Your task to perform on an android device: Show the shopping cart on walmart. Search for dell xps on walmart, select the first entry, add it to the cart, then select checkout. Image 0: 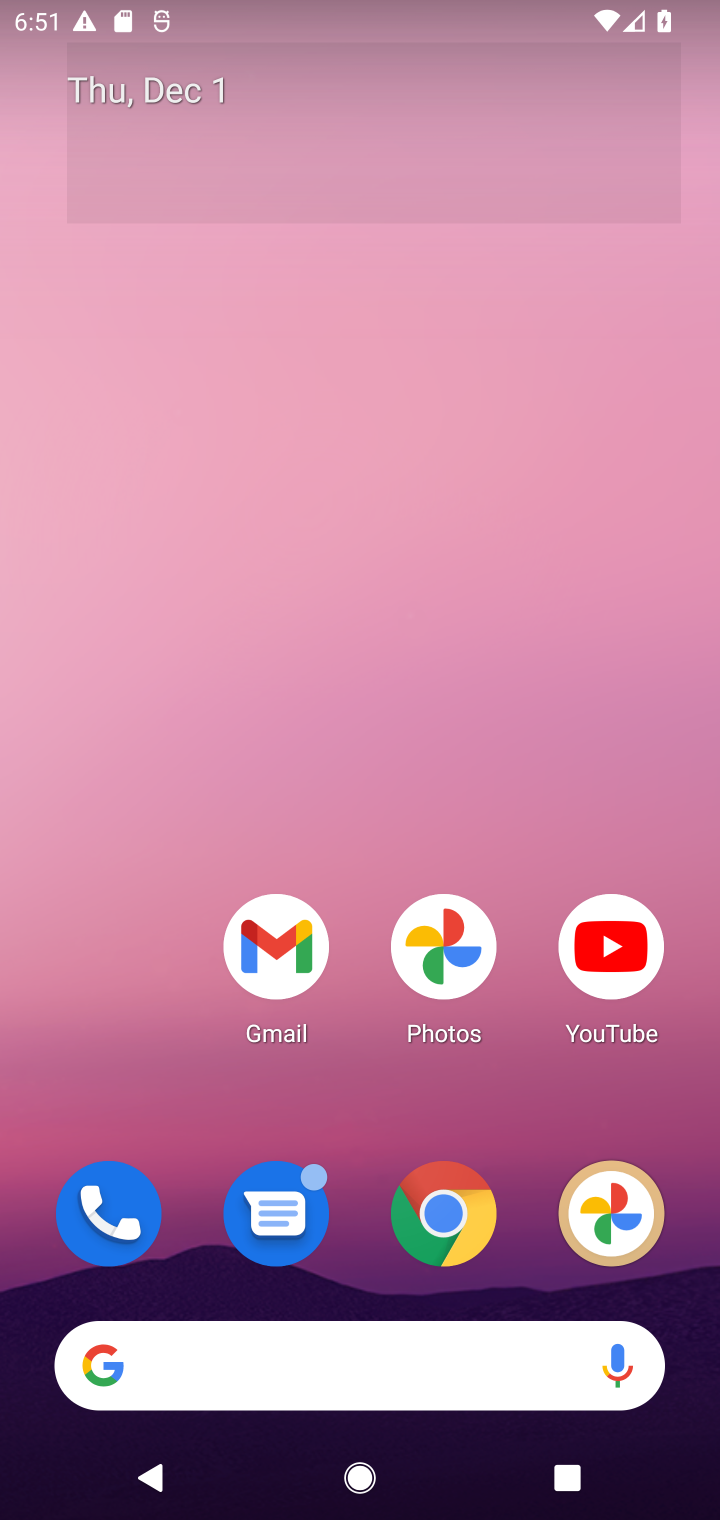
Step 0: click (325, 1381)
Your task to perform on an android device: Show the shopping cart on walmart. Search for dell xps on walmart, select the first entry, add it to the cart, then select checkout. Image 1: 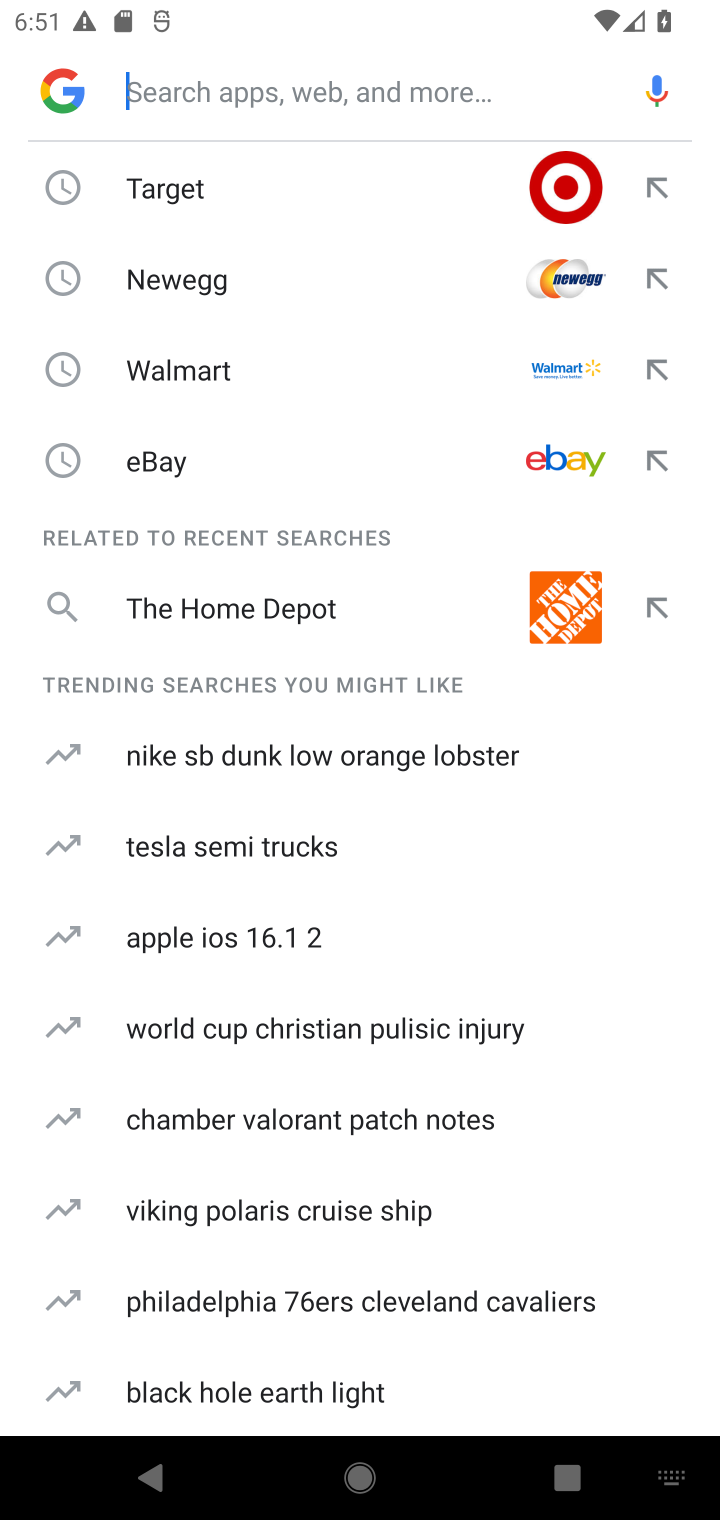
Step 1: type "walmart"
Your task to perform on an android device: Show the shopping cart on walmart. Search for dell xps on walmart, select the first entry, add it to the cart, then select checkout. Image 2: 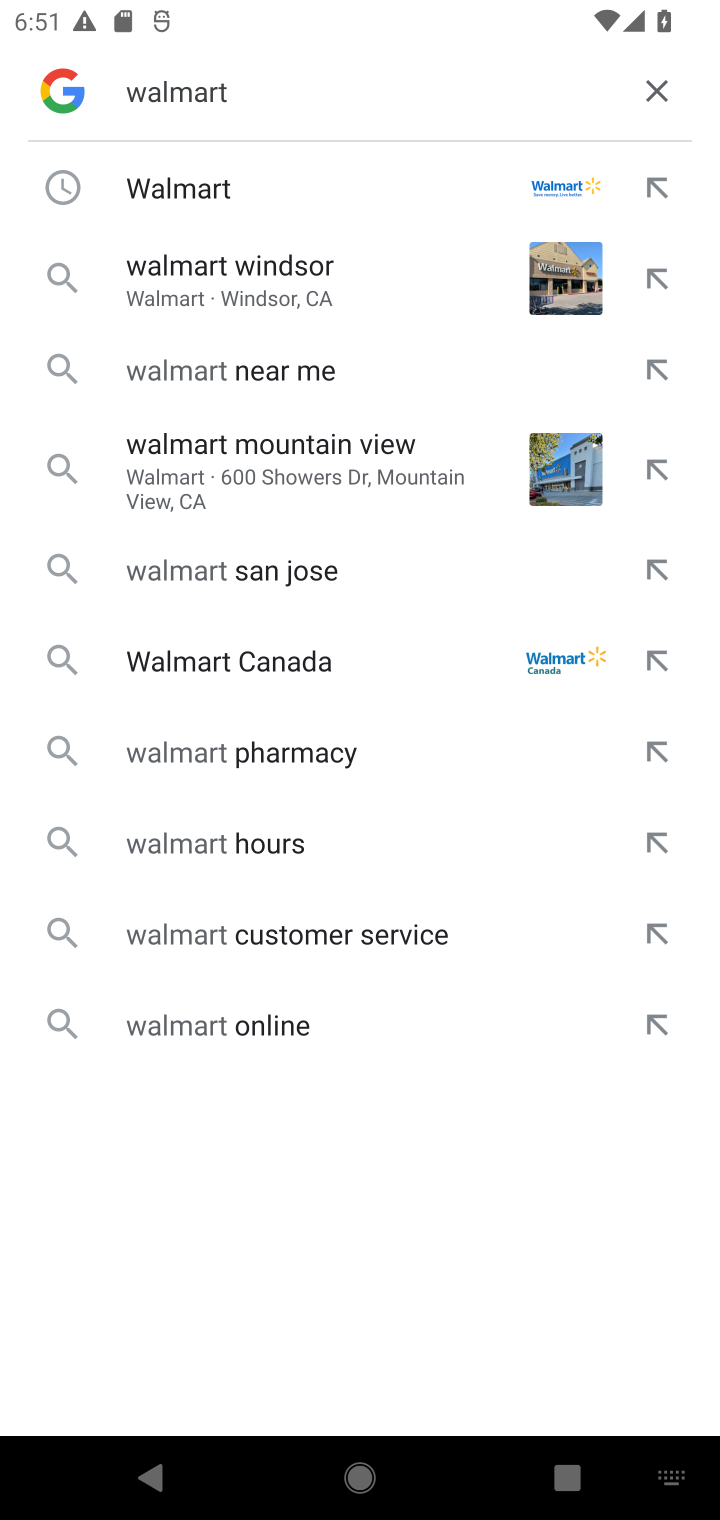
Step 2: click (219, 216)
Your task to perform on an android device: Show the shopping cart on walmart. Search for dell xps on walmart, select the first entry, add it to the cart, then select checkout. Image 3: 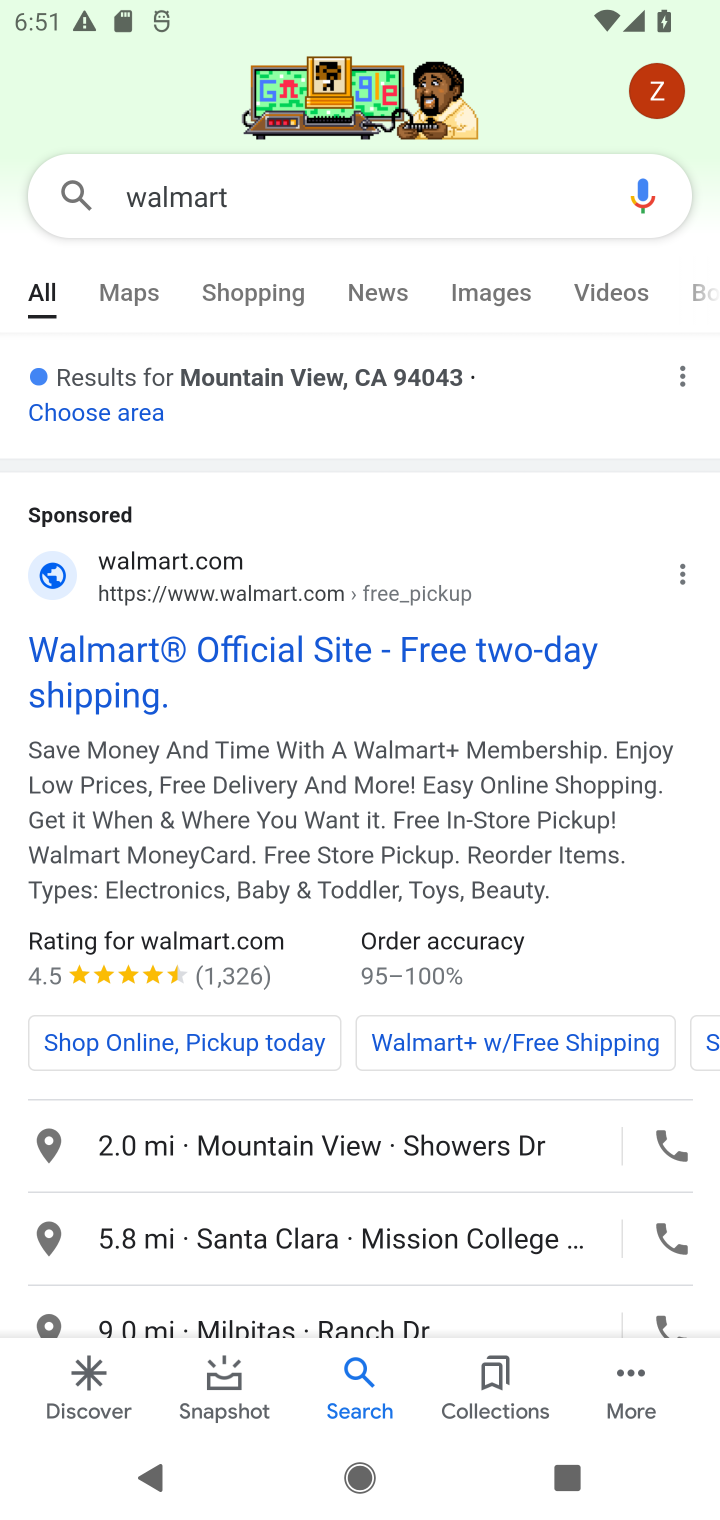
Step 3: click (134, 684)
Your task to perform on an android device: Show the shopping cart on walmart. Search for dell xps on walmart, select the first entry, add it to the cart, then select checkout. Image 4: 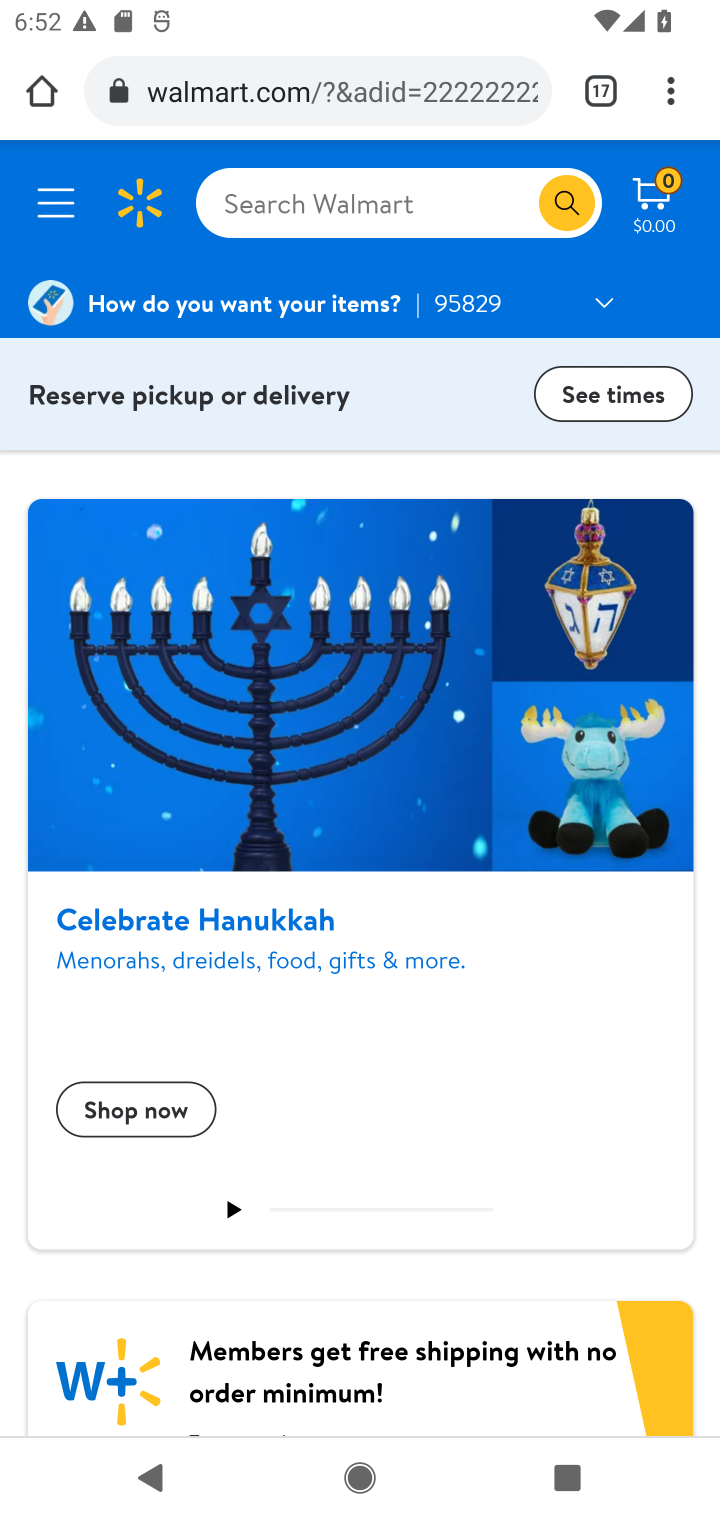
Step 4: click (274, 182)
Your task to perform on an android device: Show the shopping cart on walmart. Search for dell xps on walmart, select the first entry, add it to the cart, then select checkout. Image 5: 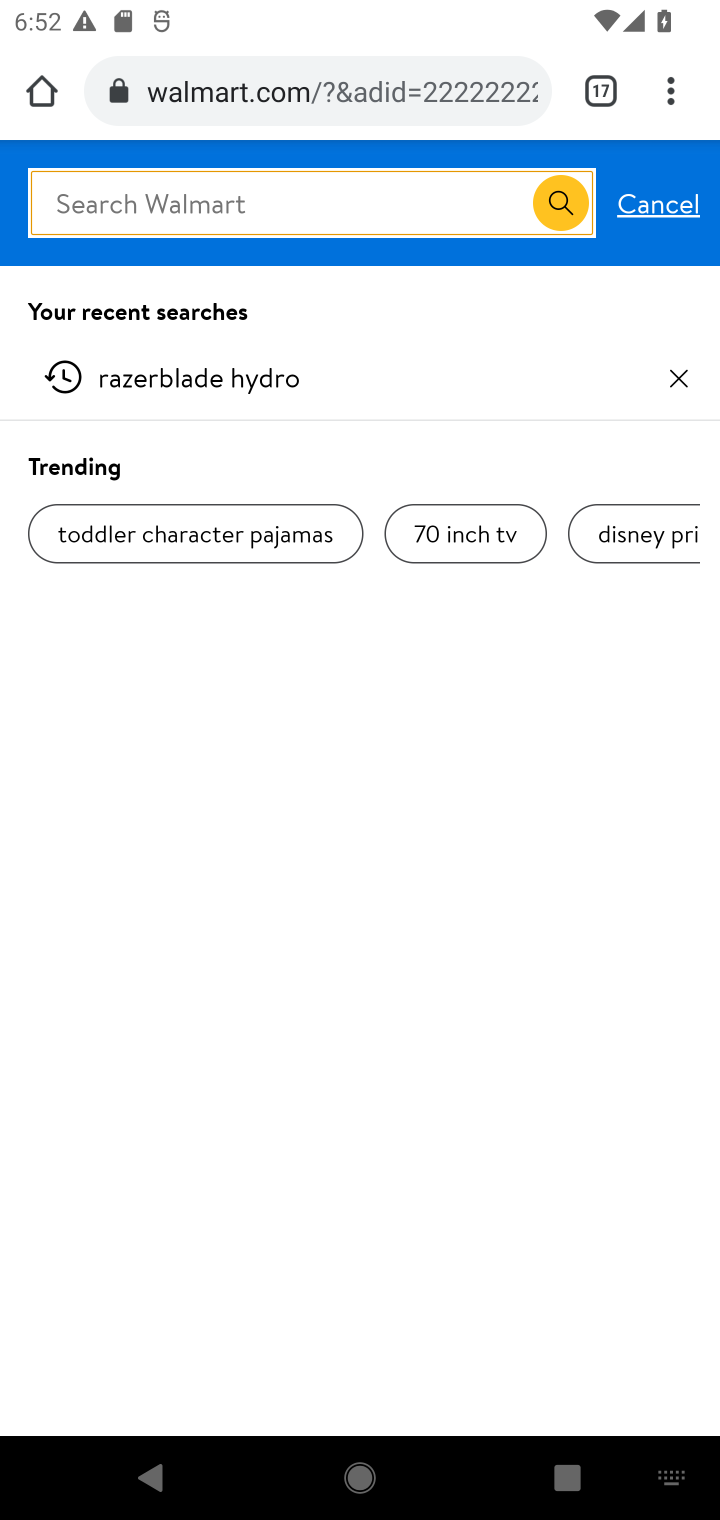
Step 5: type "dell xps"
Your task to perform on an android device: Show the shopping cart on walmart. Search for dell xps on walmart, select the first entry, add it to the cart, then select checkout. Image 6: 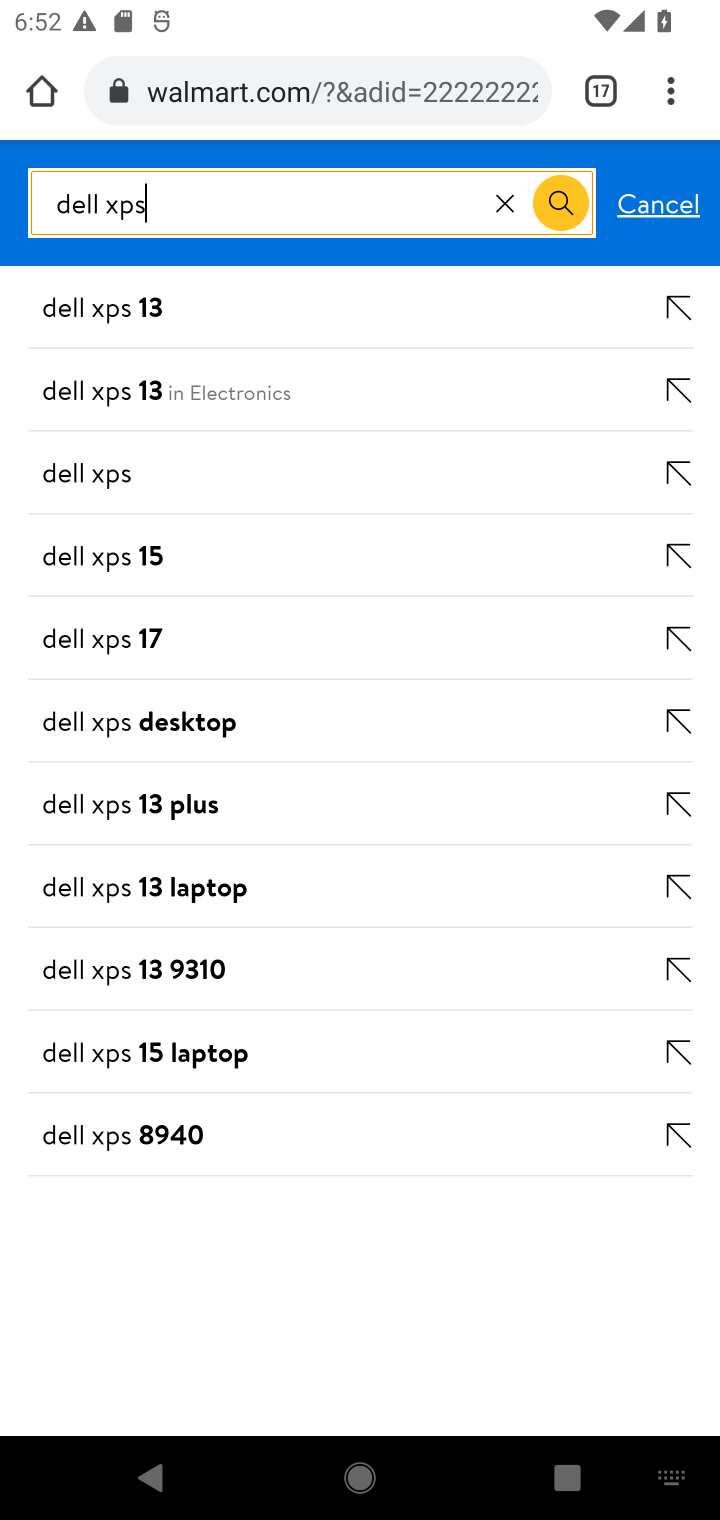
Step 6: click (142, 319)
Your task to perform on an android device: Show the shopping cart on walmart. Search for dell xps on walmart, select the first entry, add it to the cart, then select checkout. Image 7: 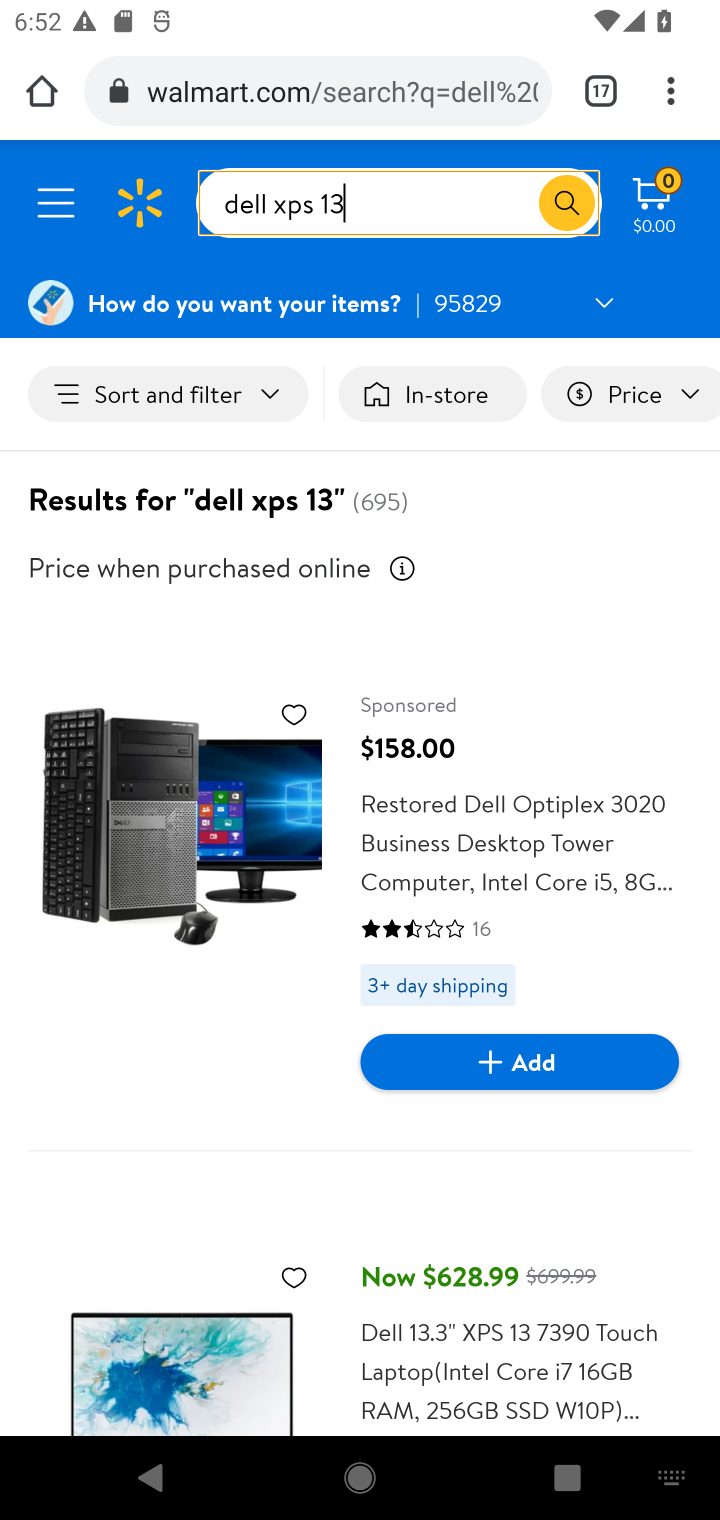
Step 7: click (446, 1049)
Your task to perform on an android device: Show the shopping cart on walmart. Search for dell xps on walmart, select the first entry, add it to the cart, then select checkout. Image 8: 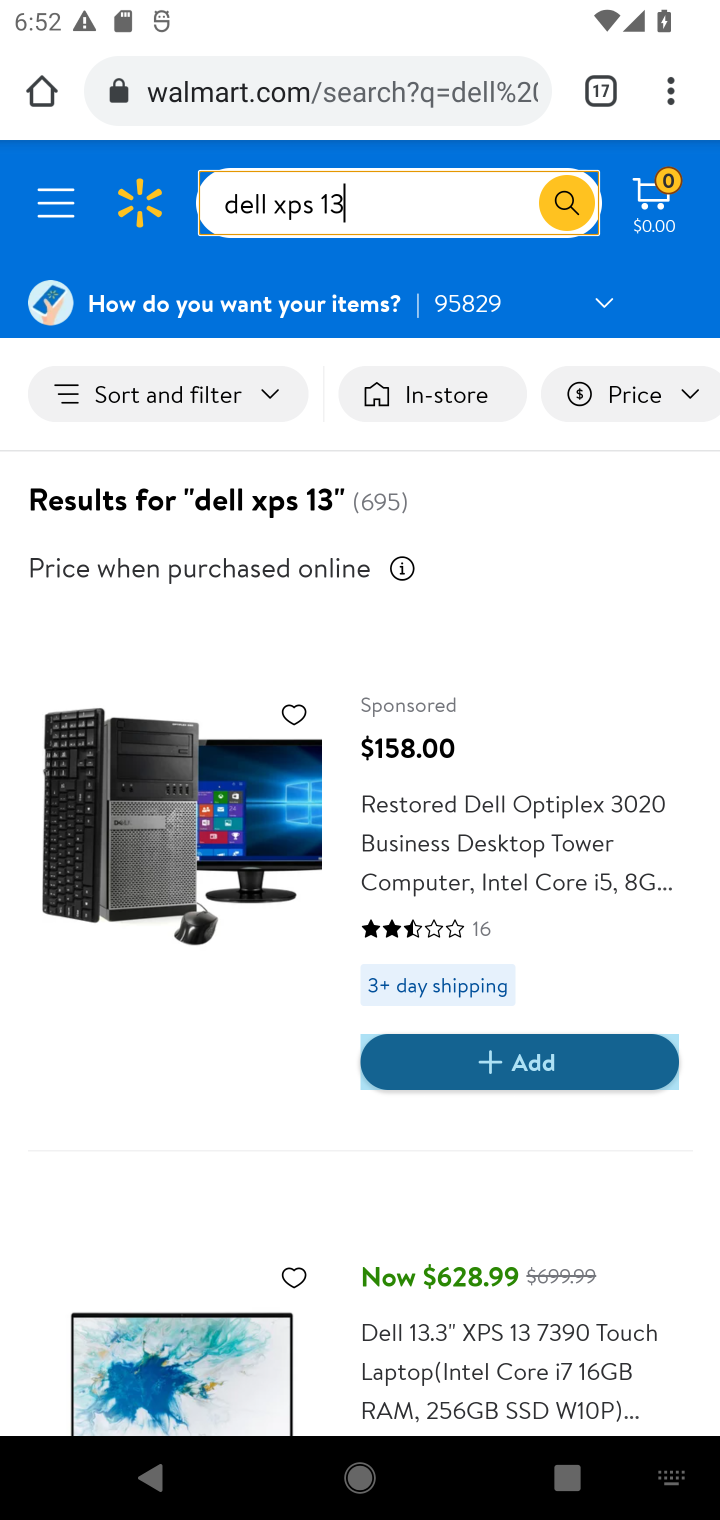
Step 8: task complete